Your task to perform on an android device: Go to display settings Image 0: 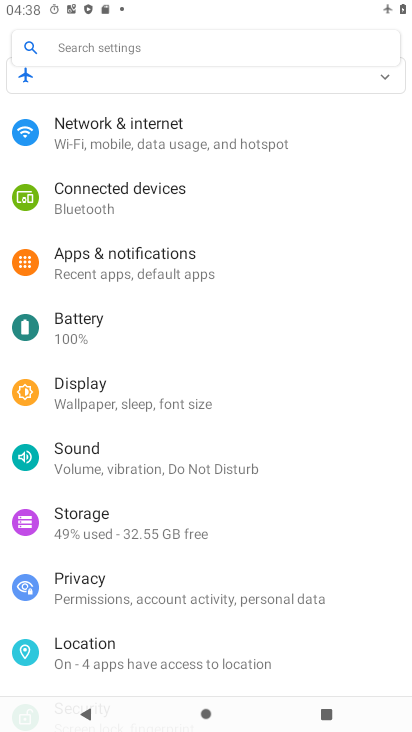
Step 0: click (215, 394)
Your task to perform on an android device: Go to display settings Image 1: 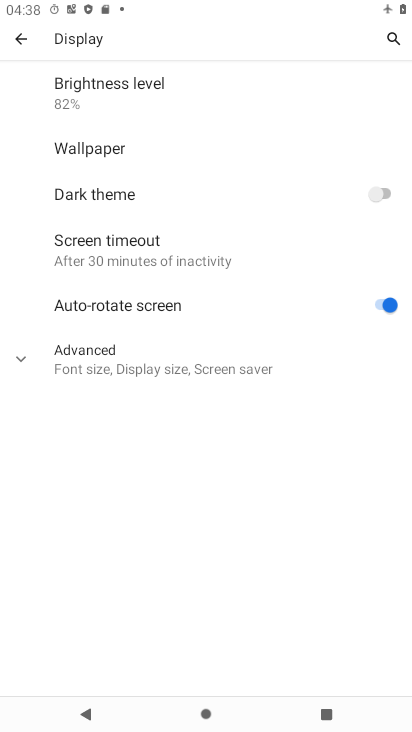
Step 1: task complete